Your task to perform on an android device: turn on priority inbox in the gmail app Image 0: 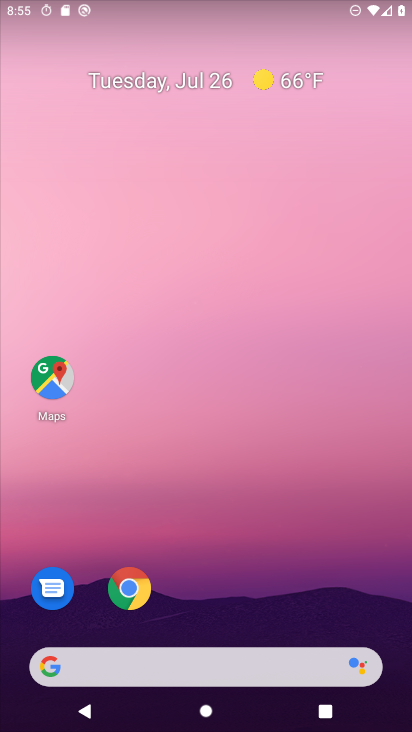
Step 0: drag from (265, 500) to (290, 83)
Your task to perform on an android device: turn on priority inbox in the gmail app Image 1: 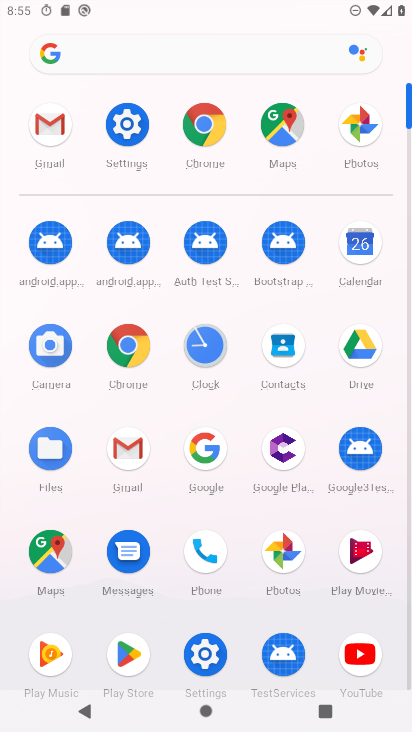
Step 1: click (133, 457)
Your task to perform on an android device: turn on priority inbox in the gmail app Image 2: 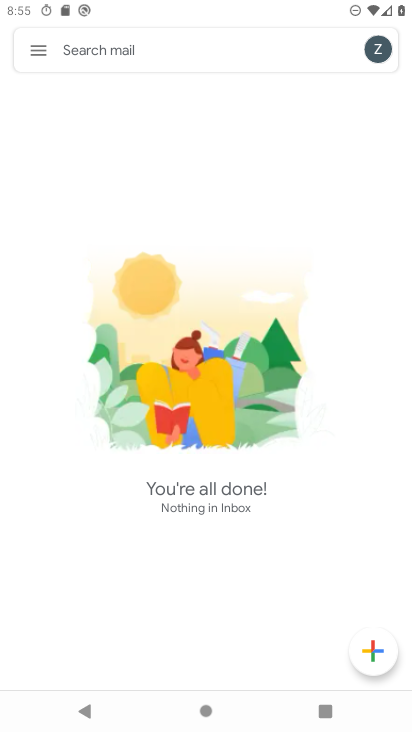
Step 2: click (40, 49)
Your task to perform on an android device: turn on priority inbox in the gmail app Image 3: 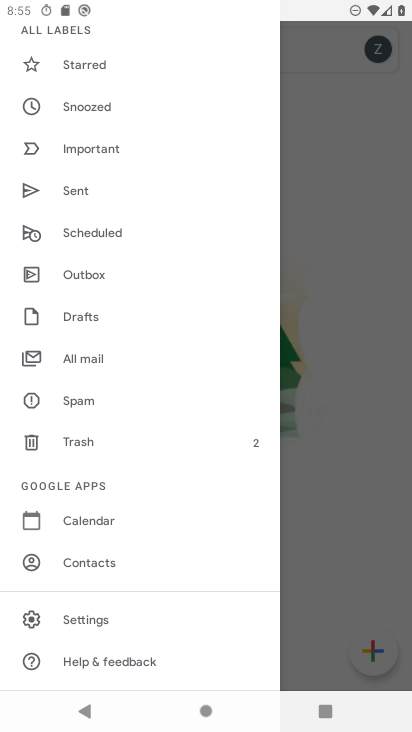
Step 3: click (77, 613)
Your task to perform on an android device: turn on priority inbox in the gmail app Image 4: 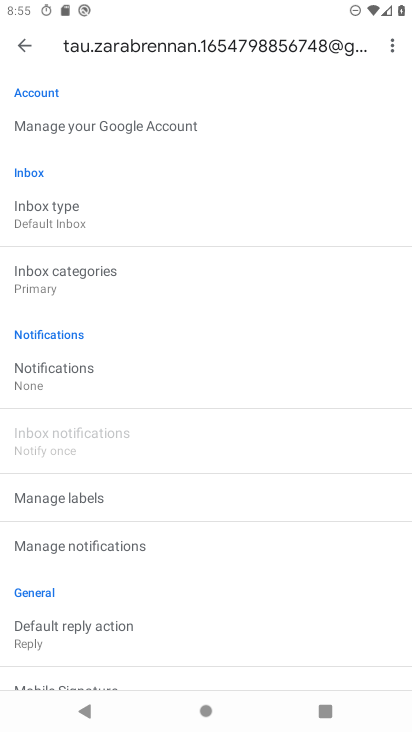
Step 4: click (45, 217)
Your task to perform on an android device: turn on priority inbox in the gmail app Image 5: 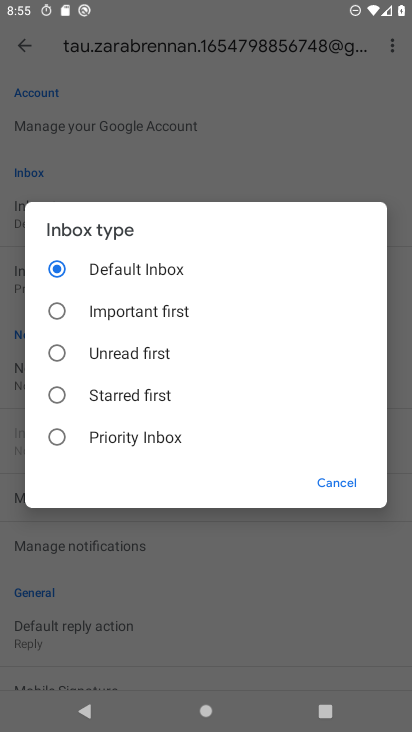
Step 5: click (52, 441)
Your task to perform on an android device: turn on priority inbox in the gmail app Image 6: 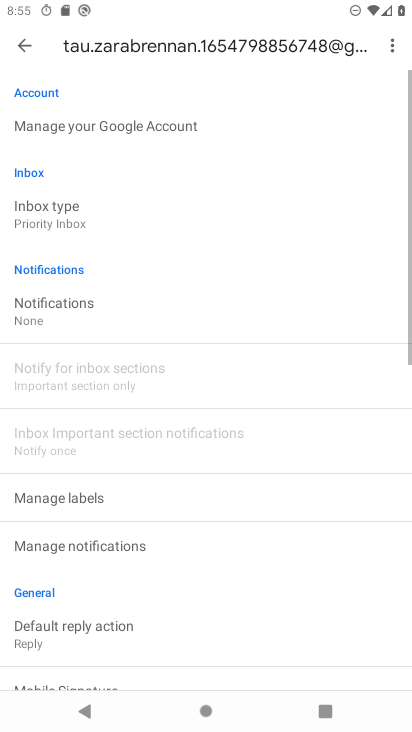
Step 6: task complete